Your task to perform on an android device: allow notifications from all sites in the chrome app Image 0: 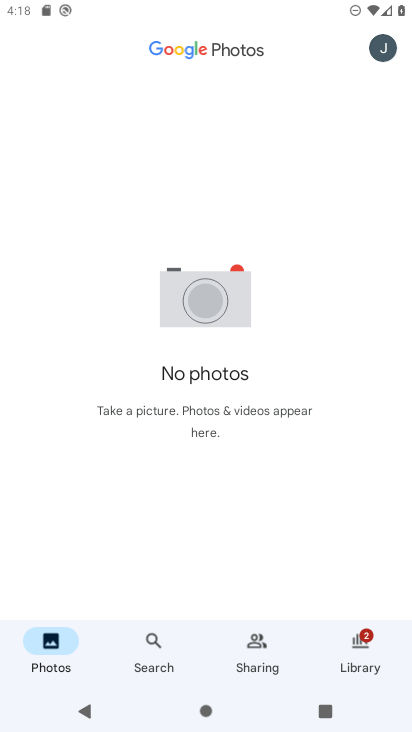
Step 0: press home button
Your task to perform on an android device: allow notifications from all sites in the chrome app Image 1: 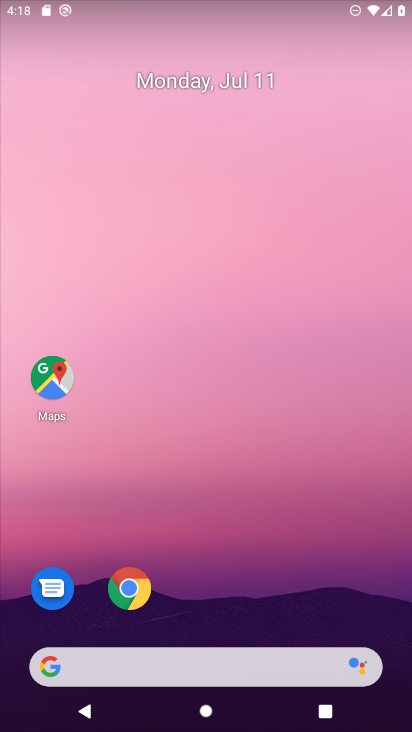
Step 1: drag from (246, 609) to (212, 8)
Your task to perform on an android device: allow notifications from all sites in the chrome app Image 2: 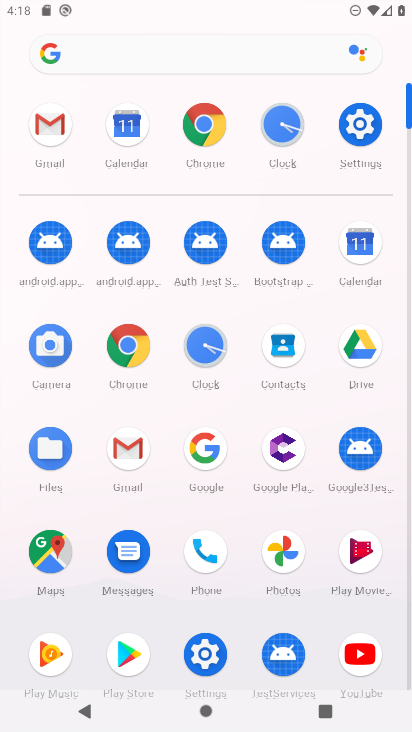
Step 2: click (198, 126)
Your task to perform on an android device: allow notifications from all sites in the chrome app Image 3: 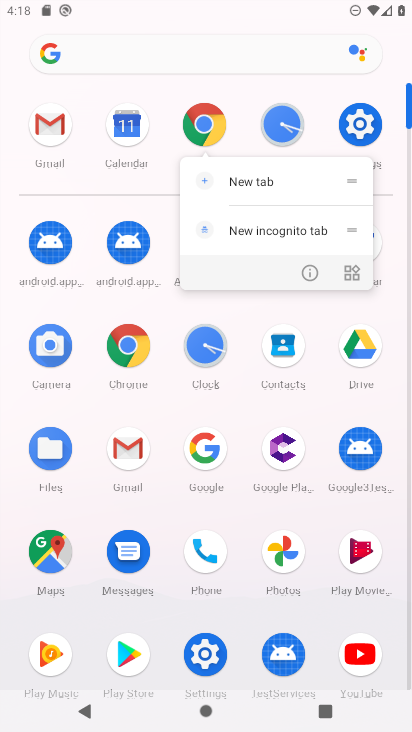
Step 3: click (198, 126)
Your task to perform on an android device: allow notifications from all sites in the chrome app Image 4: 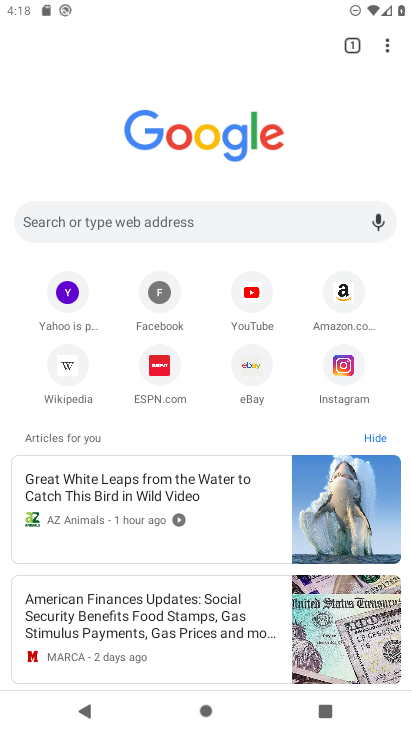
Step 4: drag from (390, 43) to (233, 440)
Your task to perform on an android device: allow notifications from all sites in the chrome app Image 5: 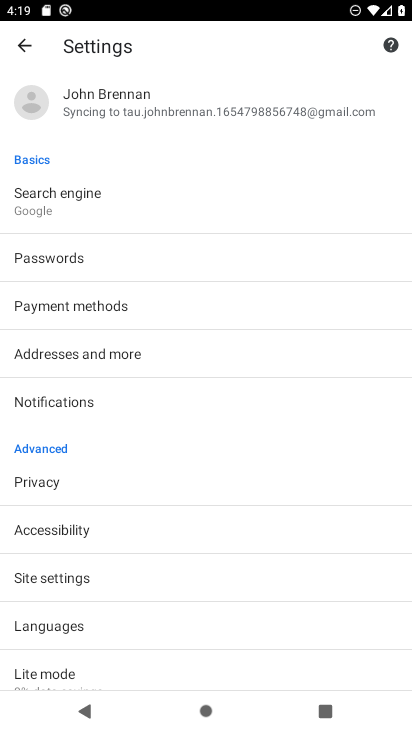
Step 5: click (78, 588)
Your task to perform on an android device: allow notifications from all sites in the chrome app Image 6: 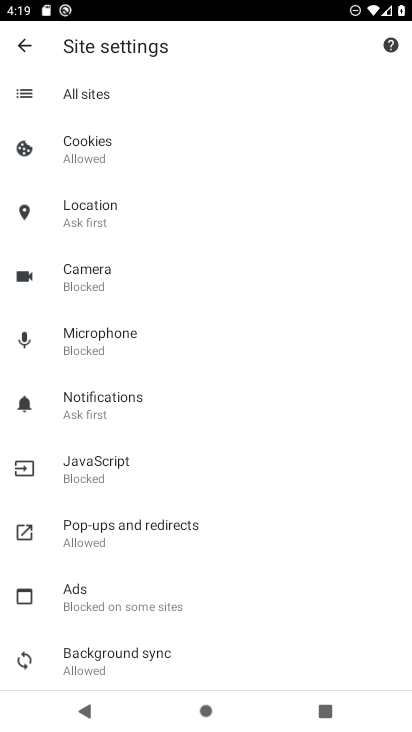
Step 6: click (127, 398)
Your task to perform on an android device: allow notifications from all sites in the chrome app Image 7: 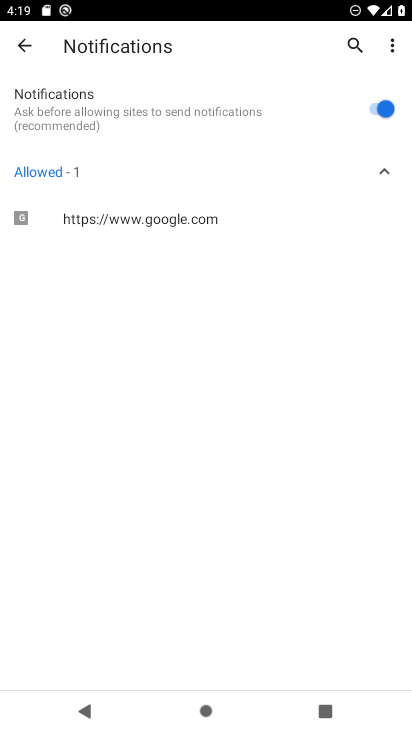
Step 7: click (63, 169)
Your task to perform on an android device: allow notifications from all sites in the chrome app Image 8: 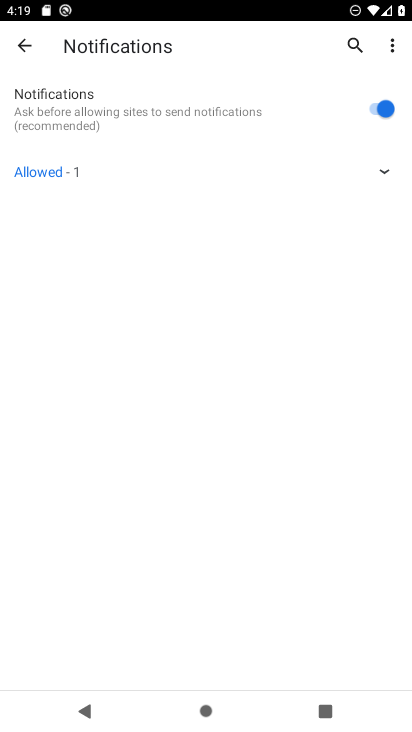
Step 8: click (43, 176)
Your task to perform on an android device: allow notifications from all sites in the chrome app Image 9: 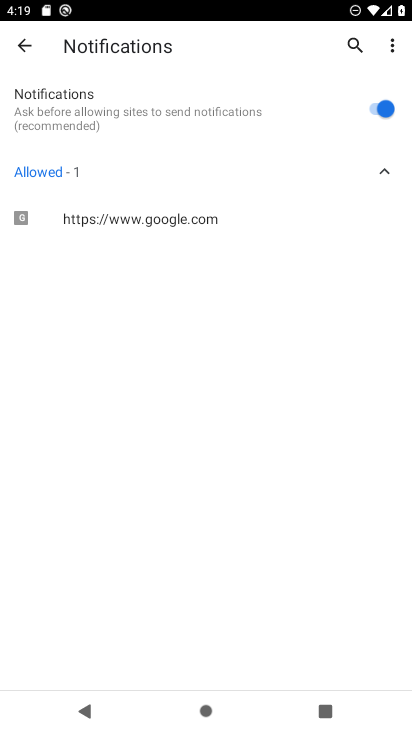
Step 9: click (396, 42)
Your task to perform on an android device: allow notifications from all sites in the chrome app Image 10: 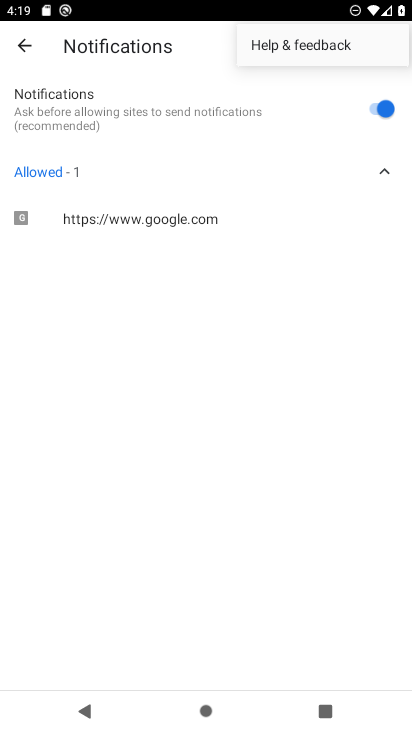
Step 10: task complete